Your task to perform on an android device: turn off picture-in-picture Image 0: 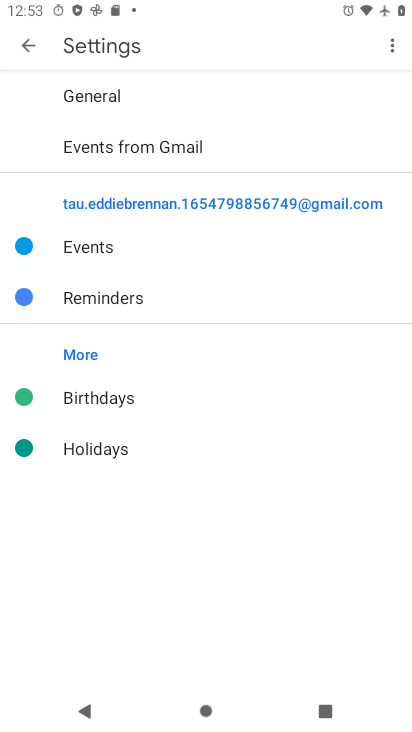
Step 0: press home button
Your task to perform on an android device: turn off picture-in-picture Image 1: 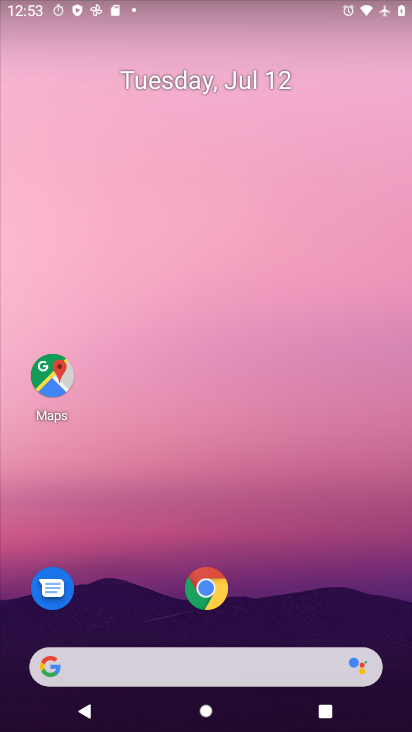
Step 1: click (211, 580)
Your task to perform on an android device: turn off picture-in-picture Image 2: 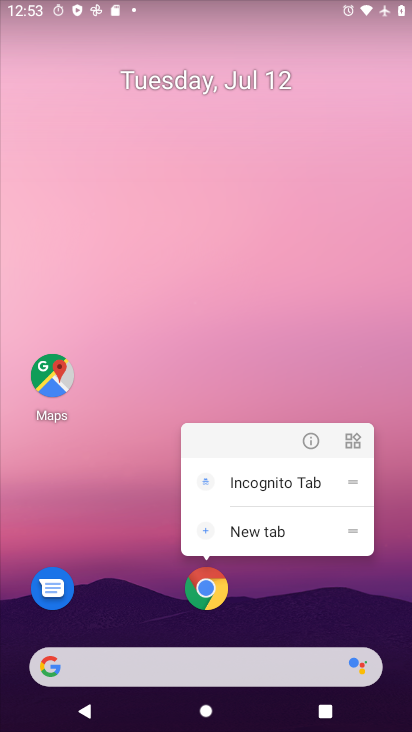
Step 2: click (313, 437)
Your task to perform on an android device: turn off picture-in-picture Image 3: 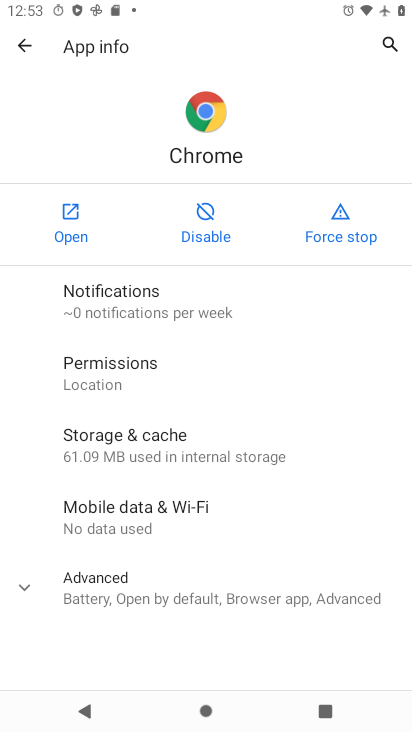
Step 3: click (154, 598)
Your task to perform on an android device: turn off picture-in-picture Image 4: 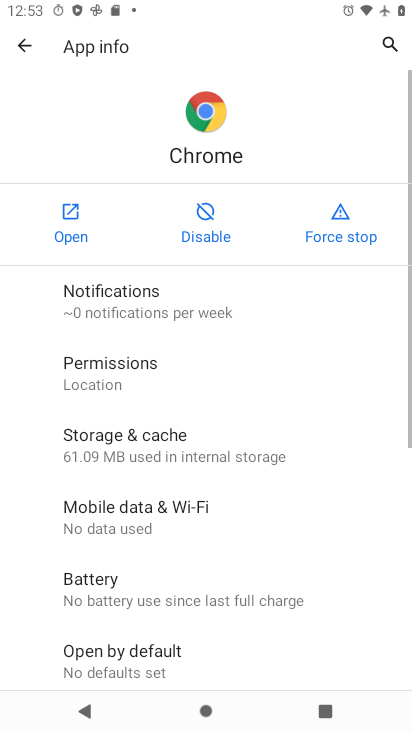
Step 4: drag from (154, 598) to (287, 31)
Your task to perform on an android device: turn off picture-in-picture Image 5: 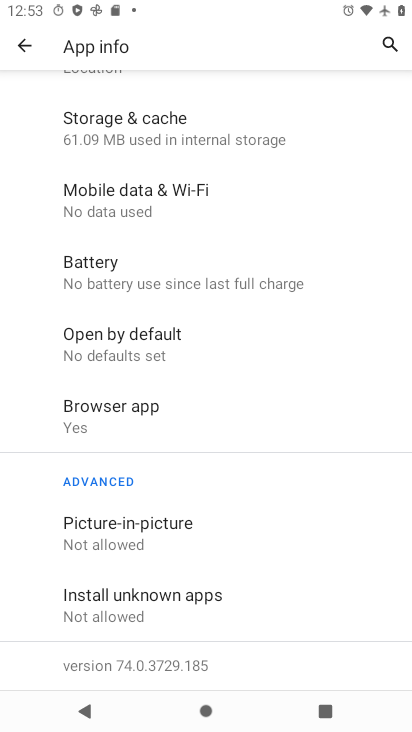
Step 5: click (146, 537)
Your task to perform on an android device: turn off picture-in-picture Image 6: 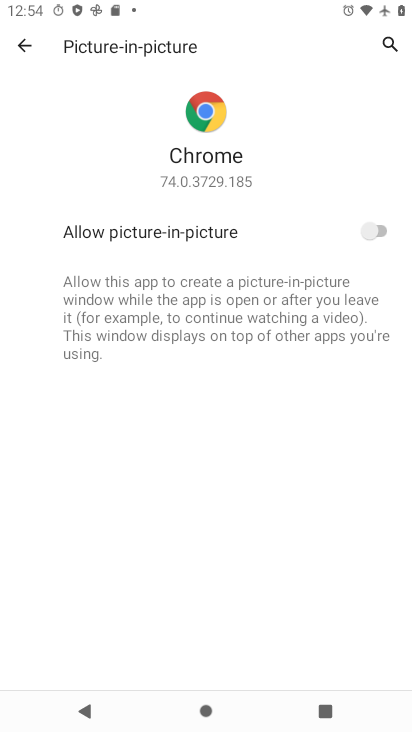
Step 6: task complete